Your task to perform on an android device: Open the map Image 0: 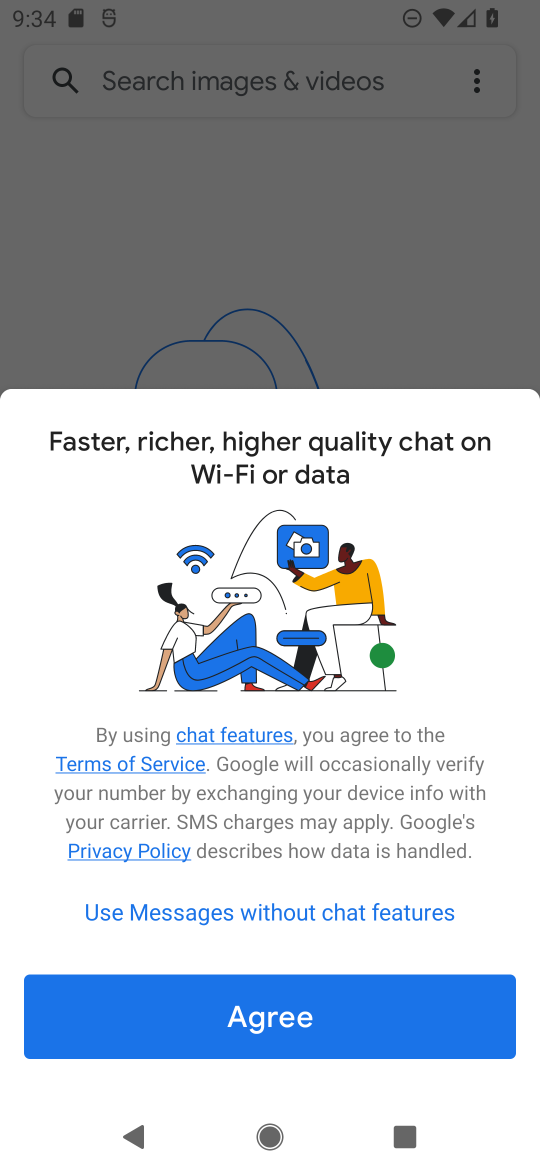
Step 0: press home button
Your task to perform on an android device: Open the map Image 1: 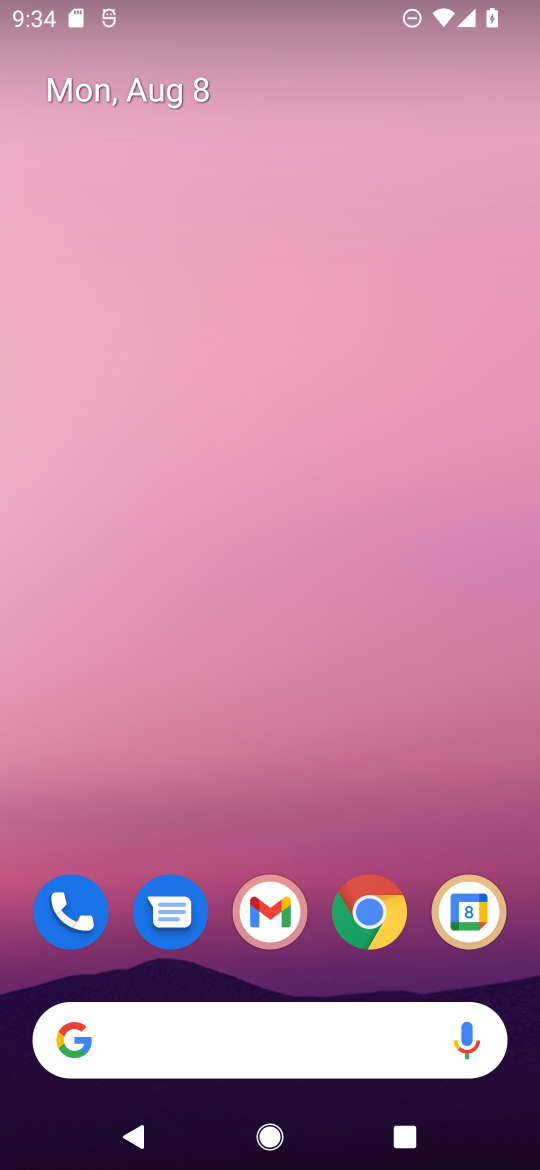
Step 1: drag from (444, 749) to (421, 68)
Your task to perform on an android device: Open the map Image 2: 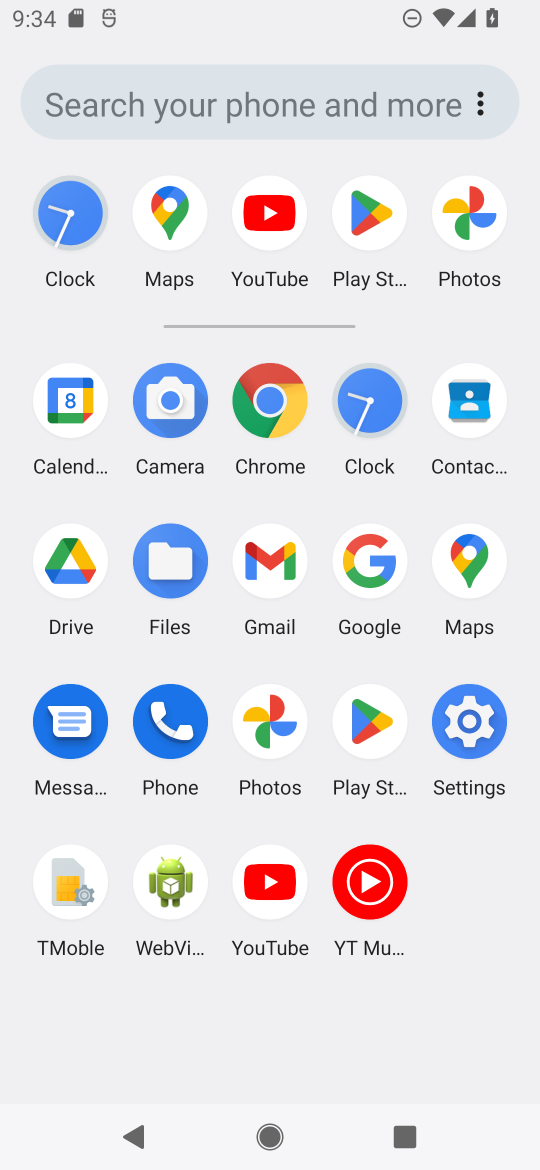
Step 2: click (472, 549)
Your task to perform on an android device: Open the map Image 3: 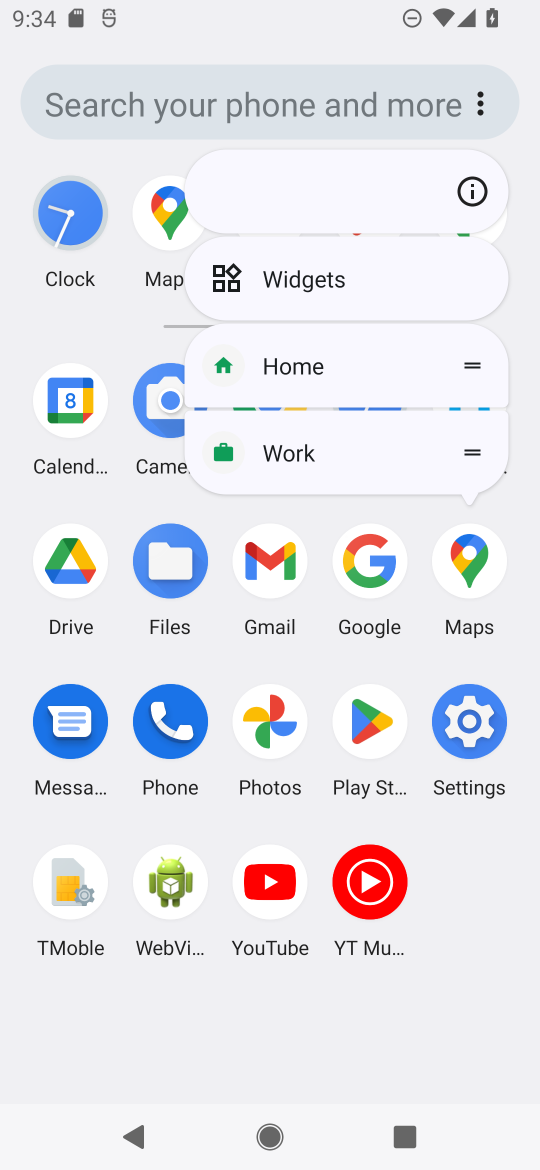
Step 3: click (467, 592)
Your task to perform on an android device: Open the map Image 4: 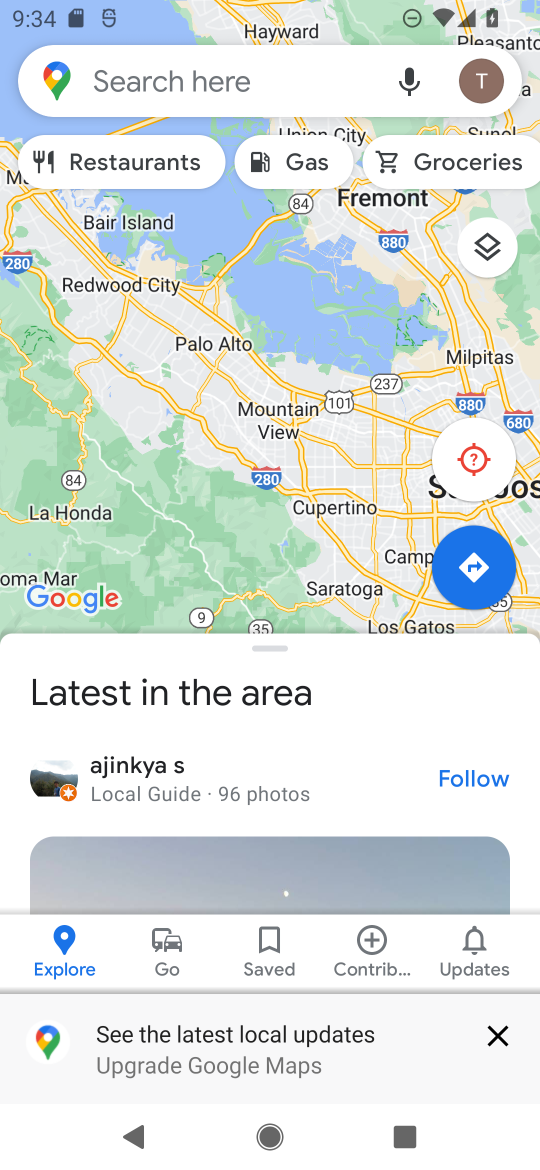
Step 4: task complete